Your task to perform on an android device: clear history in the chrome app Image 0: 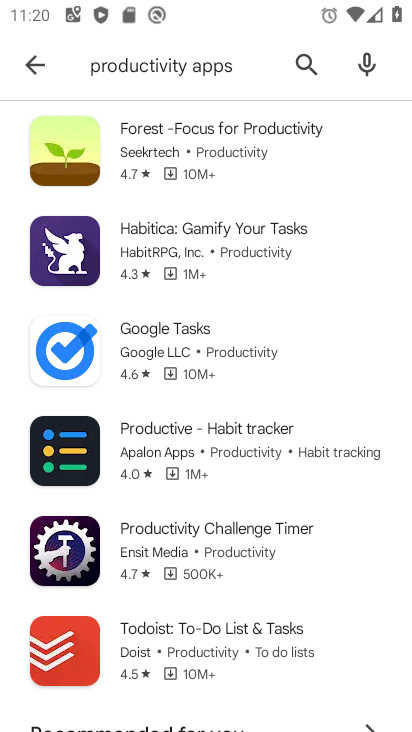
Step 0: press home button
Your task to perform on an android device: clear history in the chrome app Image 1: 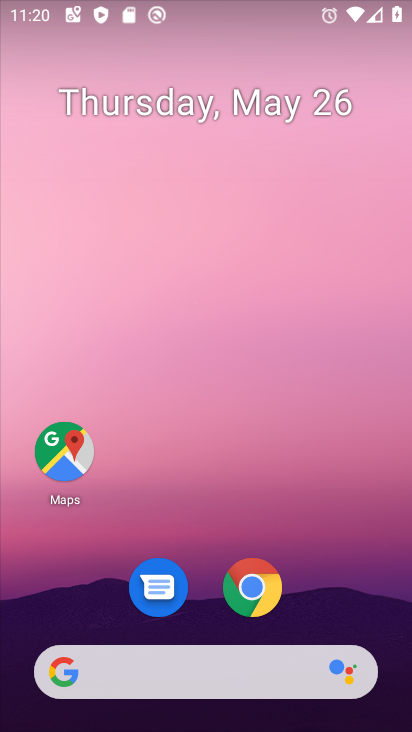
Step 1: drag from (296, 716) to (361, 136)
Your task to perform on an android device: clear history in the chrome app Image 2: 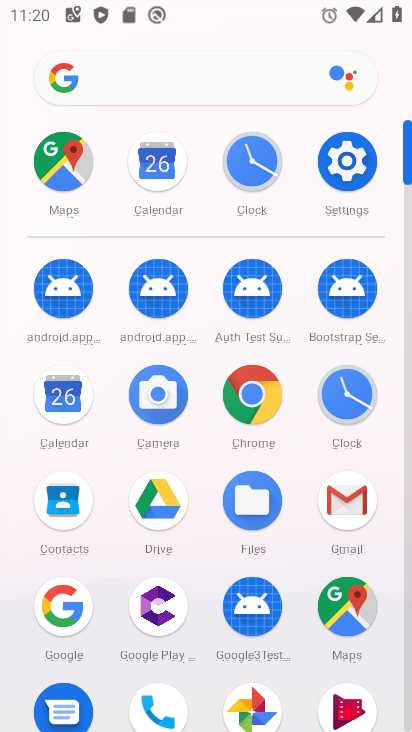
Step 2: click (255, 404)
Your task to perform on an android device: clear history in the chrome app Image 3: 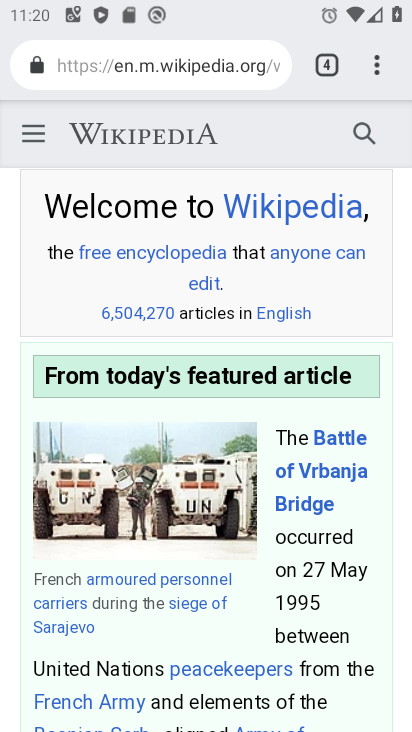
Step 3: click (376, 68)
Your task to perform on an android device: clear history in the chrome app Image 4: 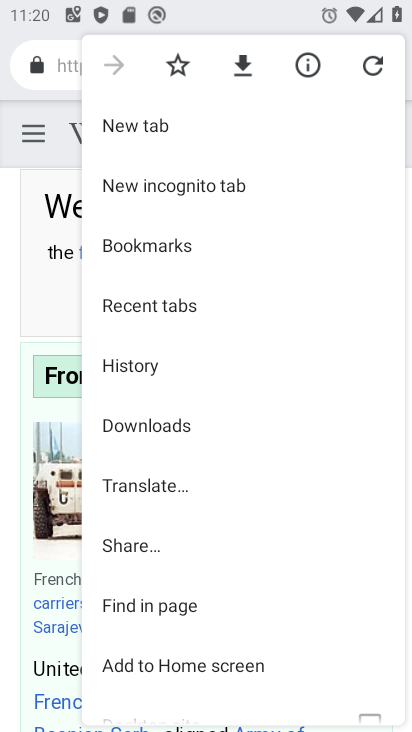
Step 4: drag from (174, 578) to (250, 285)
Your task to perform on an android device: clear history in the chrome app Image 5: 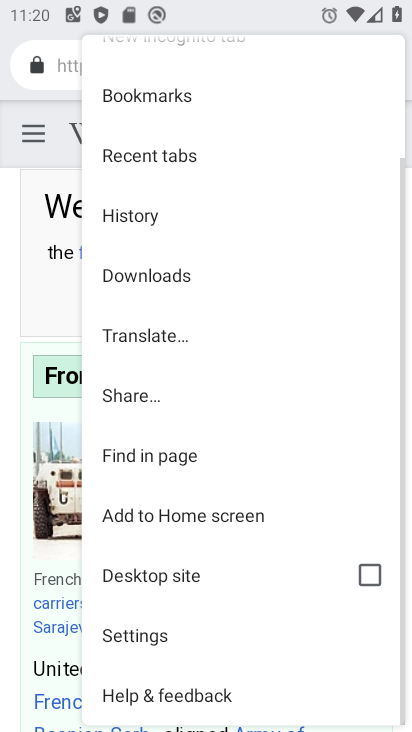
Step 5: click (150, 630)
Your task to perform on an android device: clear history in the chrome app Image 6: 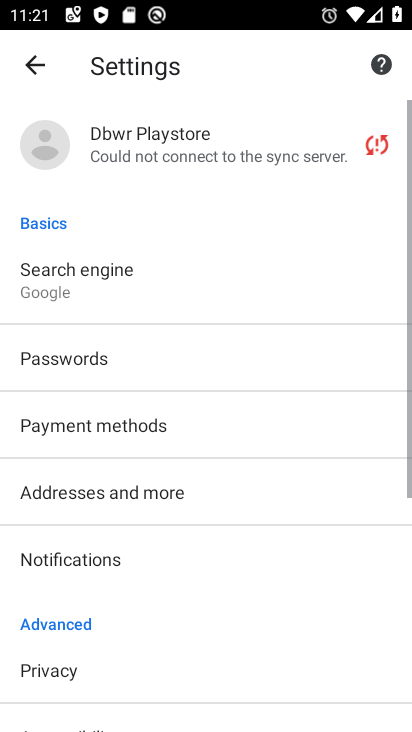
Step 6: drag from (169, 572) to (259, 244)
Your task to perform on an android device: clear history in the chrome app Image 7: 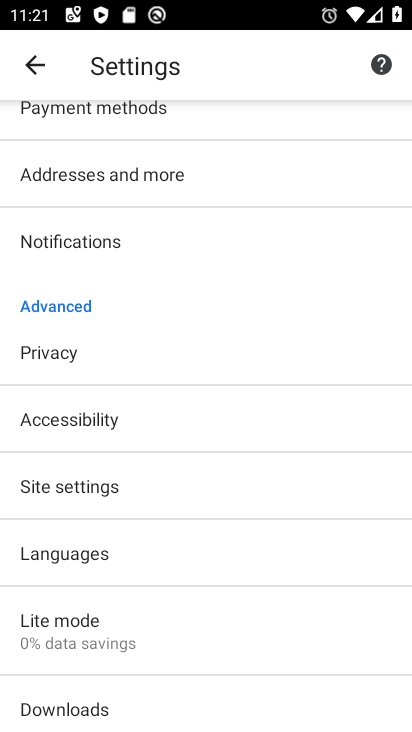
Step 7: click (57, 332)
Your task to perform on an android device: clear history in the chrome app Image 8: 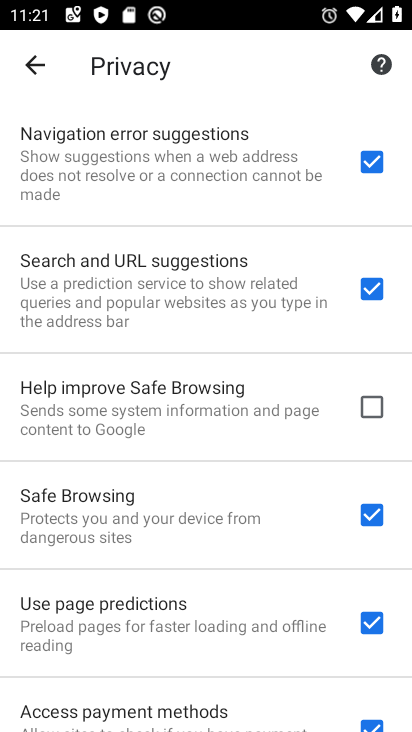
Step 8: drag from (92, 603) to (187, 130)
Your task to perform on an android device: clear history in the chrome app Image 9: 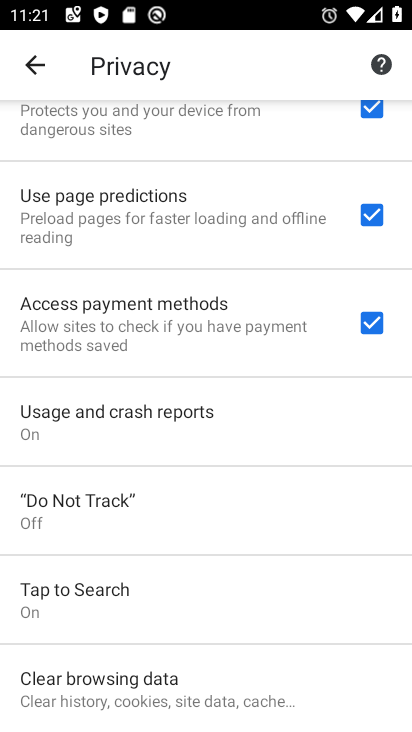
Step 9: click (89, 685)
Your task to perform on an android device: clear history in the chrome app Image 10: 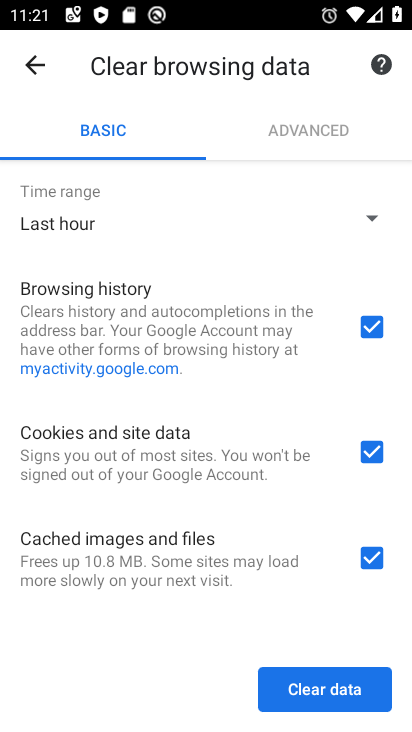
Step 10: click (303, 675)
Your task to perform on an android device: clear history in the chrome app Image 11: 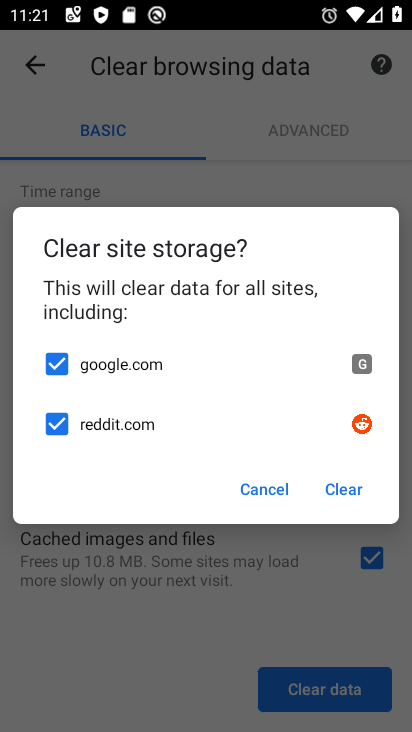
Step 11: task complete